Your task to perform on an android device: Is it going to rain tomorrow? Image 0: 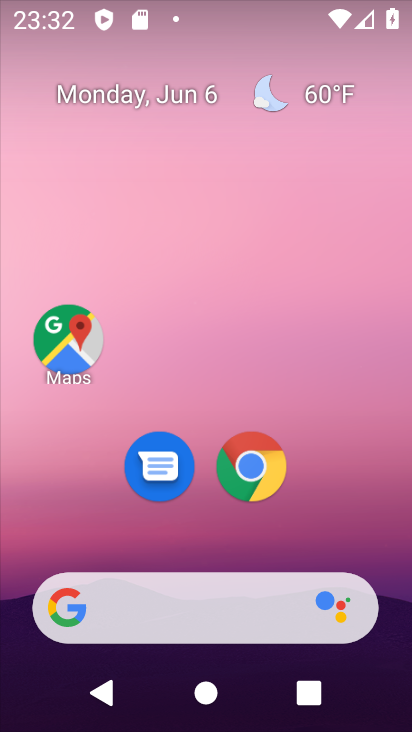
Step 0: click (245, 604)
Your task to perform on an android device: Is it going to rain tomorrow? Image 1: 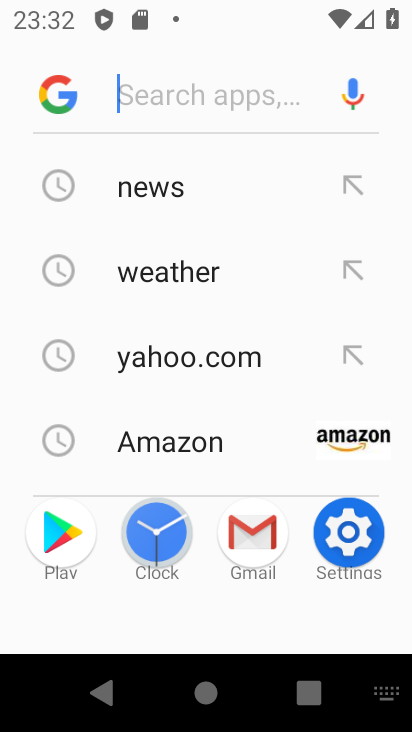
Step 1: type "is it going to rain tomorrow"
Your task to perform on an android device: Is it going to rain tomorrow? Image 2: 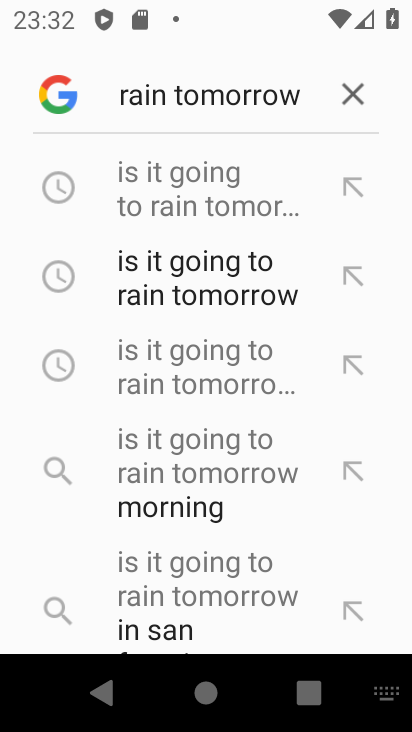
Step 2: click (196, 207)
Your task to perform on an android device: Is it going to rain tomorrow? Image 3: 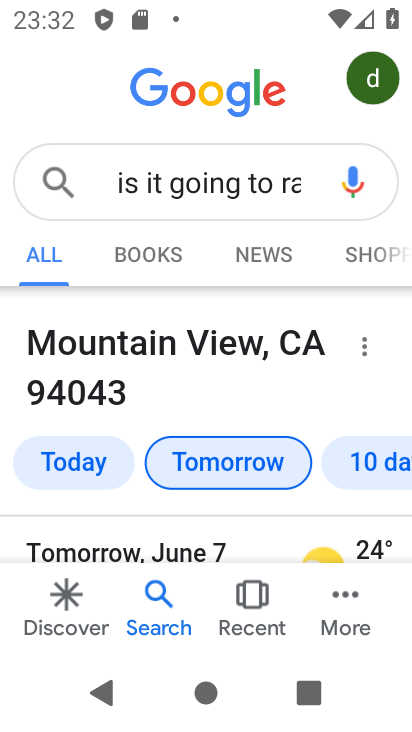
Step 3: task complete